Your task to perform on an android device: Show me popular videos on Youtube Image 0: 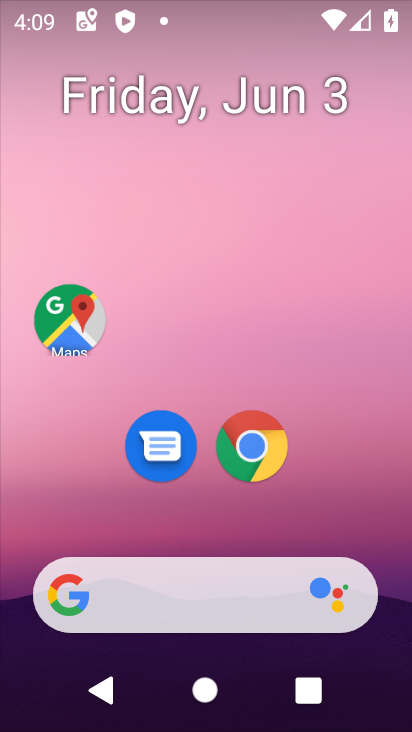
Step 0: click (53, 314)
Your task to perform on an android device: Show me popular videos on Youtube Image 1: 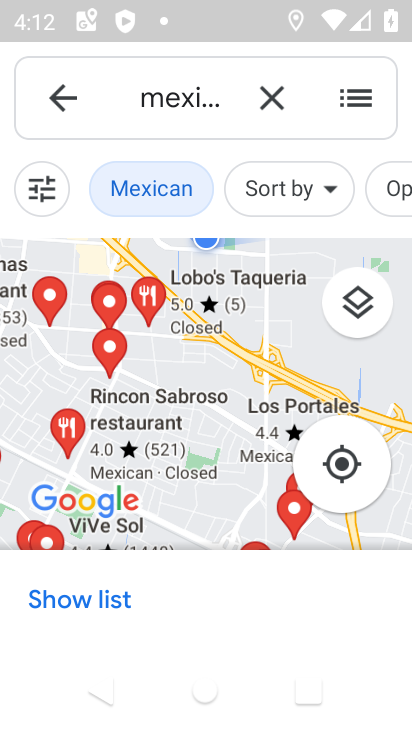
Step 1: task complete